Your task to perform on an android device: Open Reddit.com Image 0: 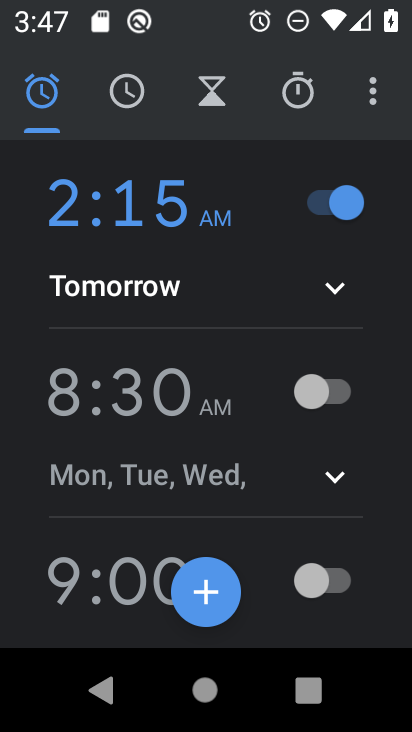
Step 0: press home button
Your task to perform on an android device: Open Reddit.com Image 1: 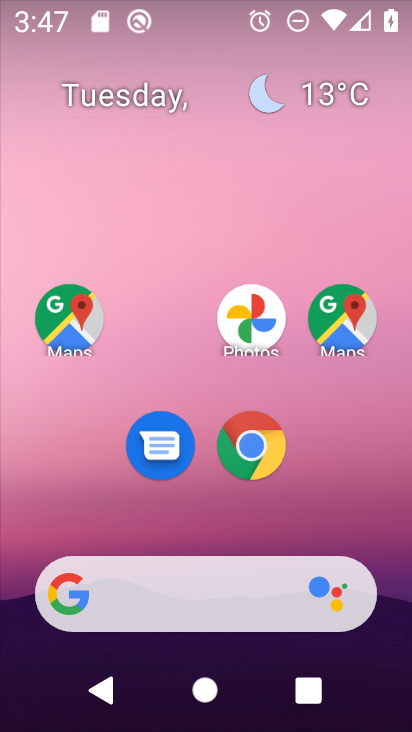
Step 1: drag from (392, 549) to (392, 230)
Your task to perform on an android device: Open Reddit.com Image 2: 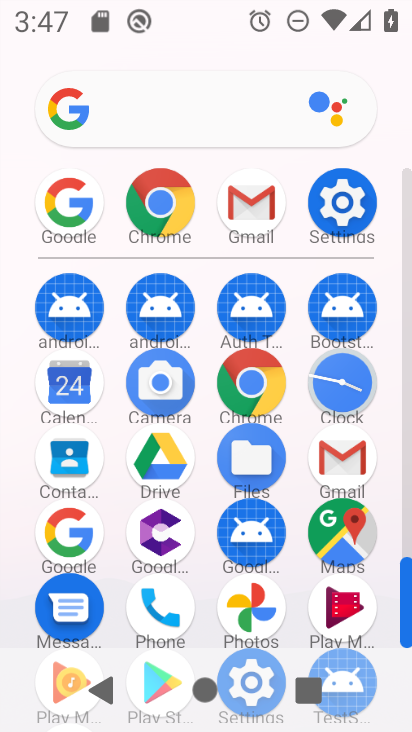
Step 2: click (265, 401)
Your task to perform on an android device: Open Reddit.com Image 3: 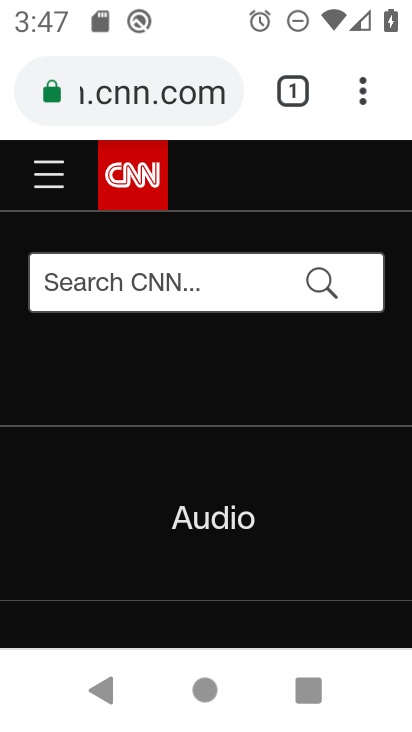
Step 3: click (206, 95)
Your task to perform on an android device: Open Reddit.com Image 4: 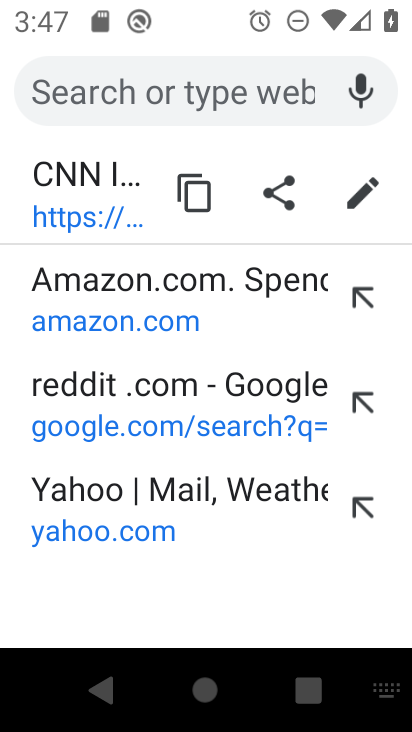
Step 4: type "reddit.com"
Your task to perform on an android device: Open Reddit.com Image 5: 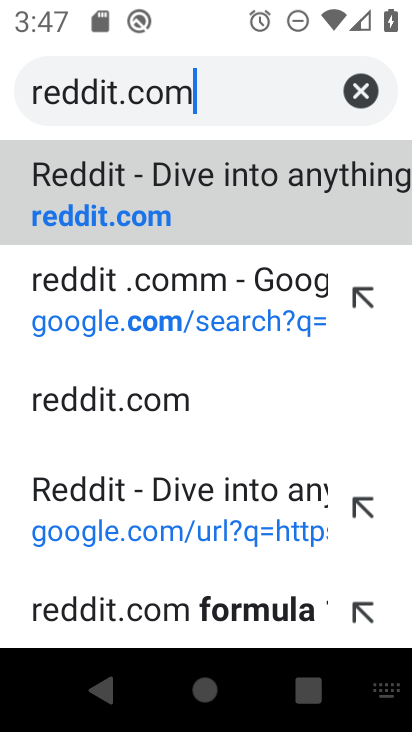
Step 5: click (177, 415)
Your task to perform on an android device: Open Reddit.com Image 6: 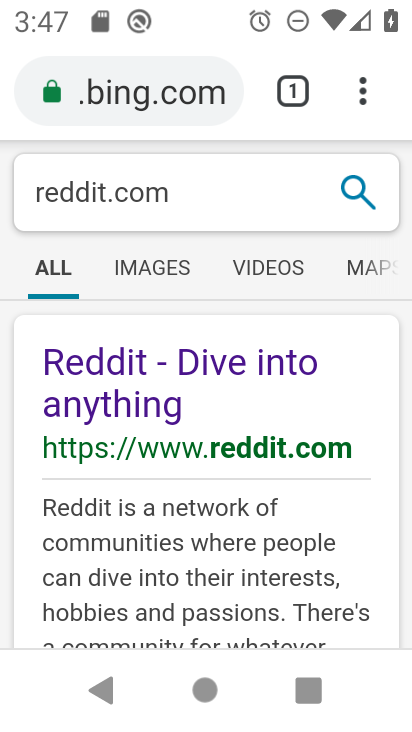
Step 6: click (174, 413)
Your task to perform on an android device: Open Reddit.com Image 7: 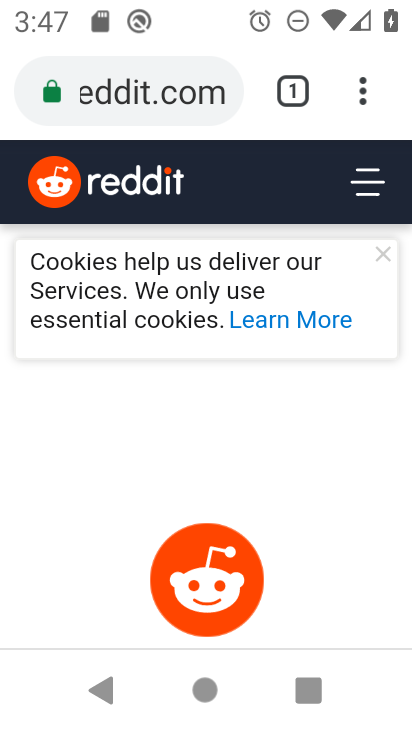
Step 7: task complete